Your task to perform on an android device: add a contact Image 0: 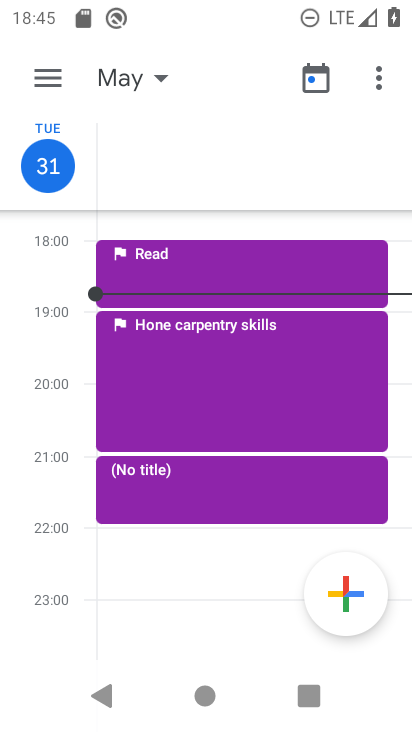
Step 0: press home button
Your task to perform on an android device: add a contact Image 1: 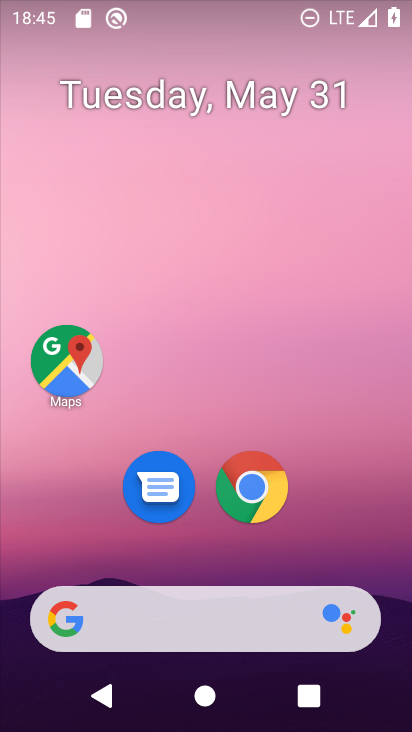
Step 1: drag from (358, 548) to (279, 194)
Your task to perform on an android device: add a contact Image 2: 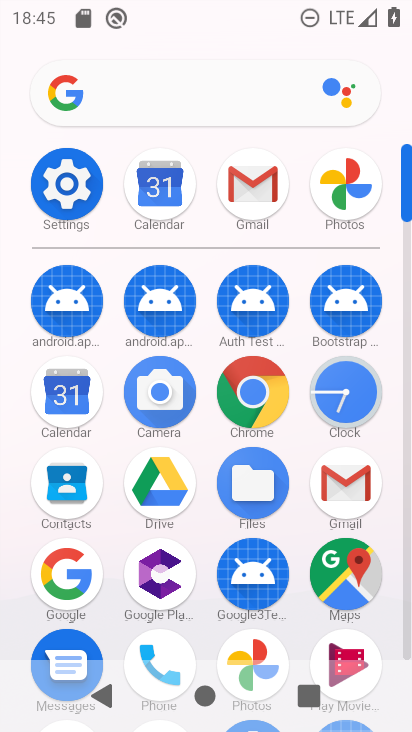
Step 2: click (70, 486)
Your task to perform on an android device: add a contact Image 3: 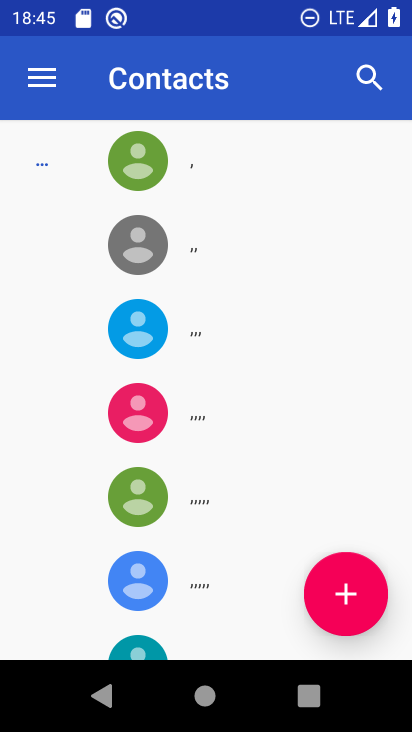
Step 3: click (352, 614)
Your task to perform on an android device: add a contact Image 4: 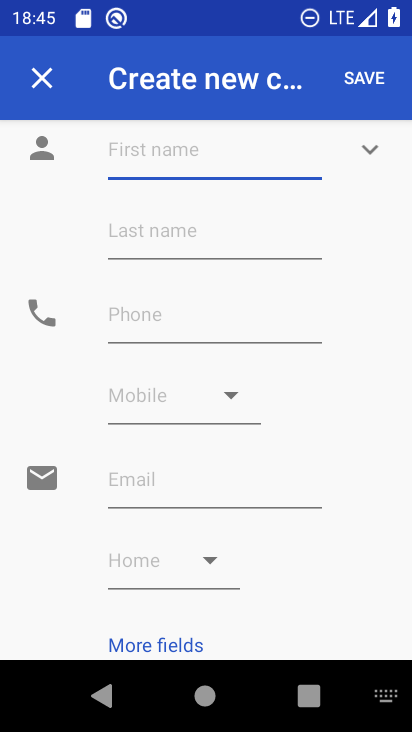
Step 4: click (178, 152)
Your task to perform on an android device: add a contact Image 5: 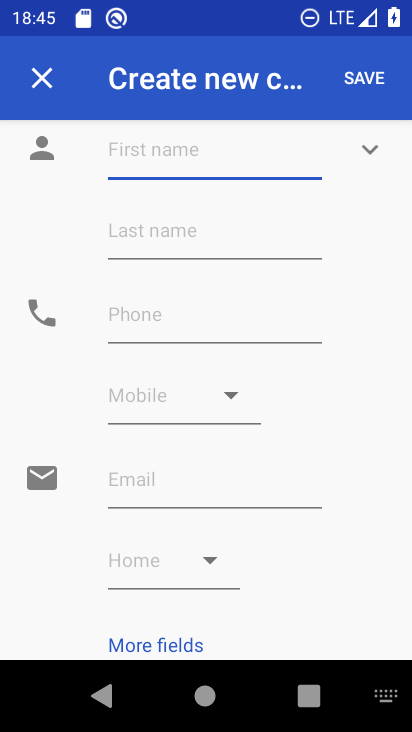
Step 5: type "sssssss"
Your task to perform on an android device: add a contact Image 6: 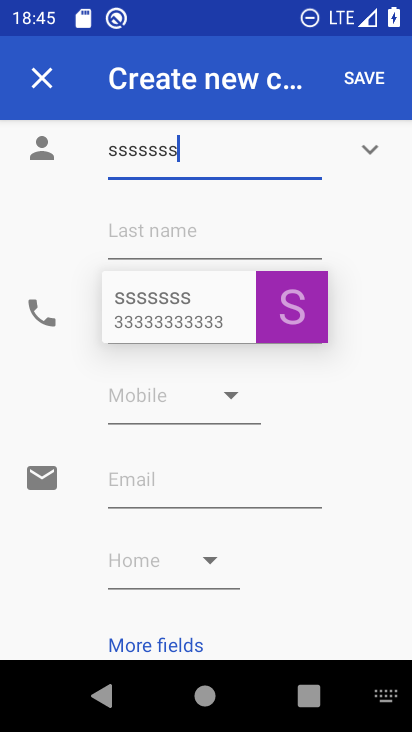
Step 6: click (160, 311)
Your task to perform on an android device: add a contact Image 7: 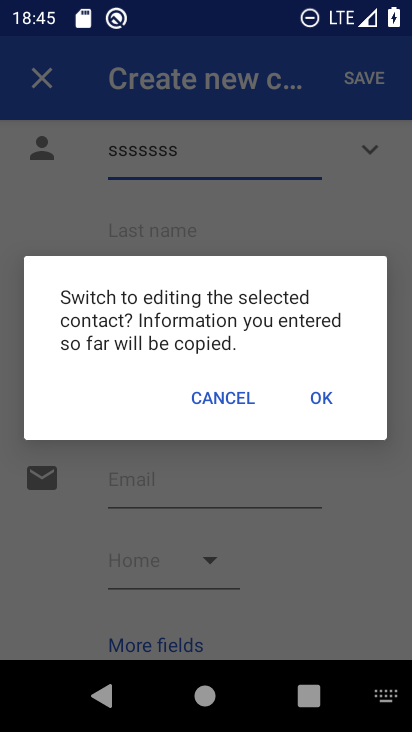
Step 7: click (238, 391)
Your task to perform on an android device: add a contact Image 8: 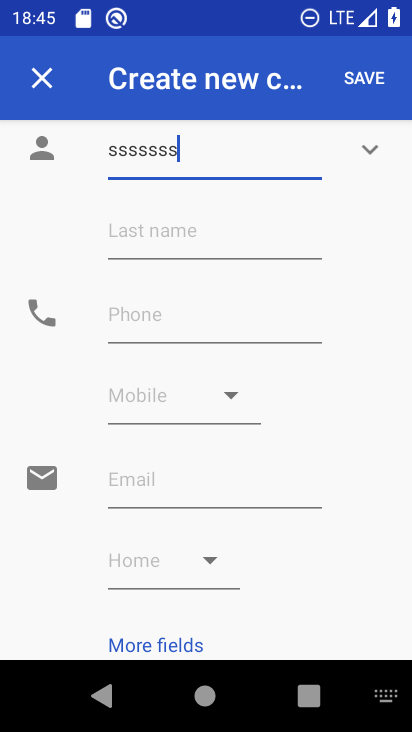
Step 8: click (151, 315)
Your task to perform on an android device: add a contact Image 9: 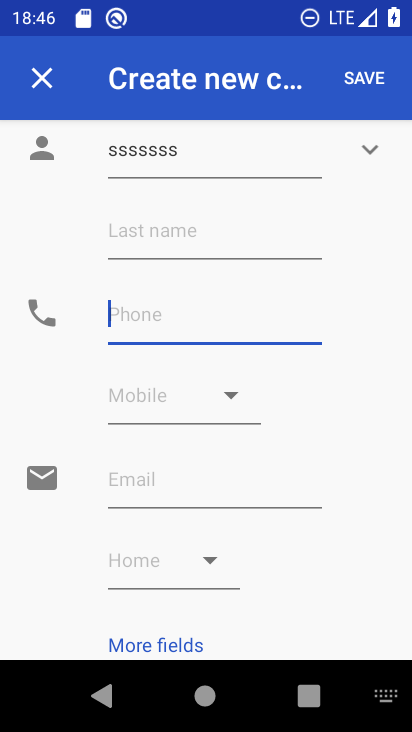
Step 9: type "9876543w4567"
Your task to perform on an android device: add a contact Image 10: 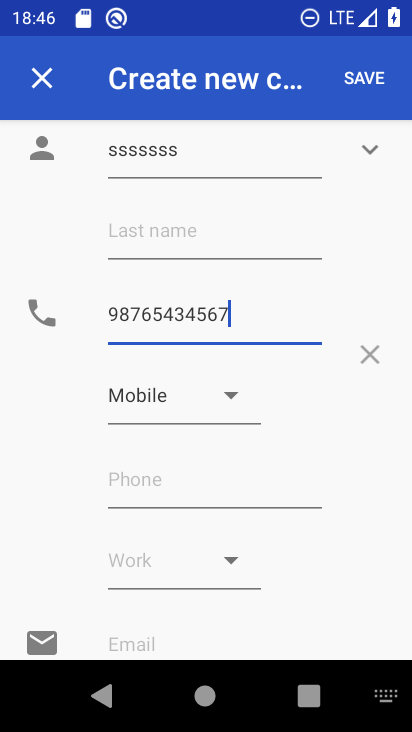
Step 10: click (365, 77)
Your task to perform on an android device: add a contact Image 11: 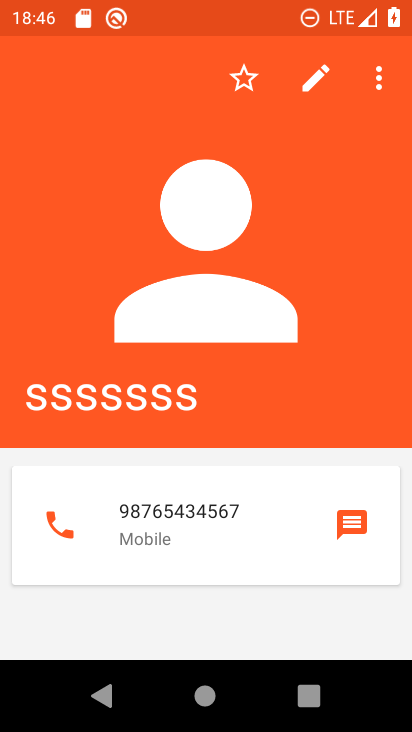
Step 11: task complete